Your task to perform on an android device: Toggle the flashlight Image 0: 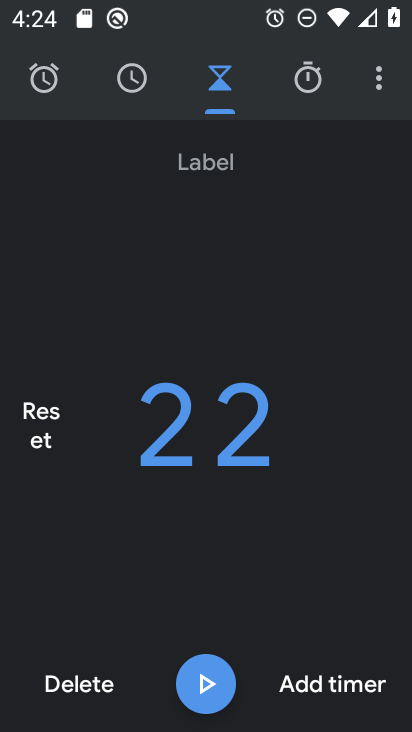
Step 0: drag from (221, 3) to (203, 350)
Your task to perform on an android device: Toggle the flashlight Image 1: 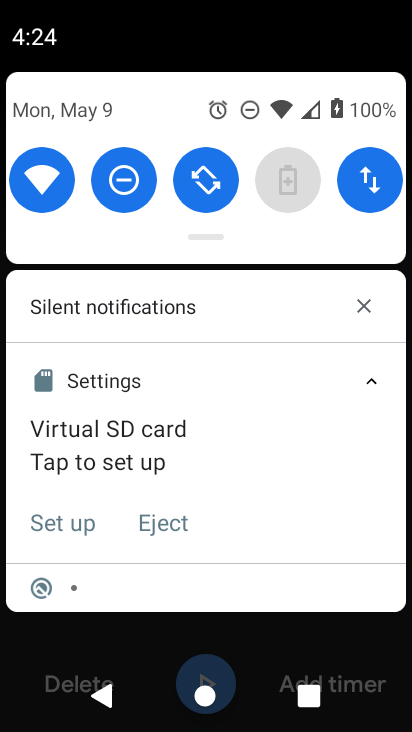
Step 1: task complete